Your task to perform on an android device: toggle priority inbox in the gmail app Image 0: 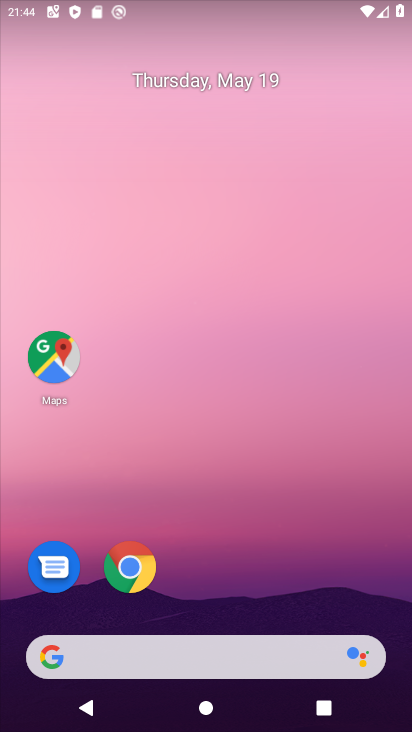
Step 0: press home button
Your task to perform on an android device: toggle priority inbox in the gmail app Image 1: 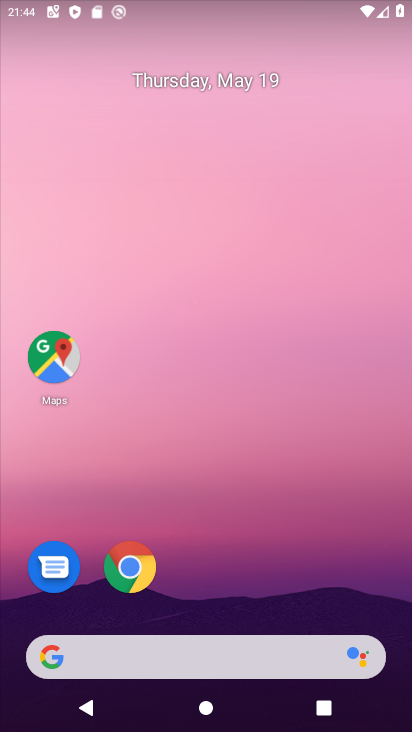
Step 1: drag from (204, 607) to (270, 141)
Your task to perform on an android device: toggle priority inbox in the gmail app Image 2: 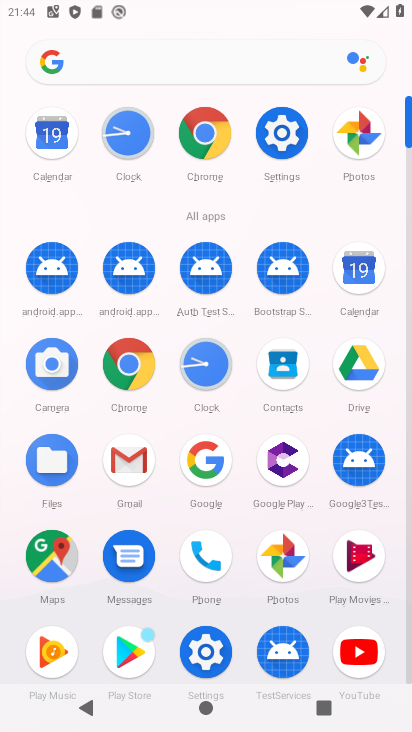
Step 2: click (136, 456)
Your task to perform on an android device: toggle priority inbox in the gmail app Image 3: 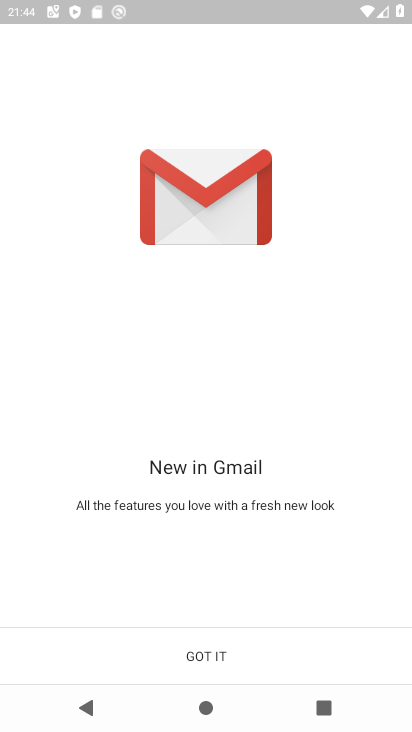
Step 3: click (207, 654)
Your task to perform on an android device: toggle priority inbox in the gmail app Image 4: 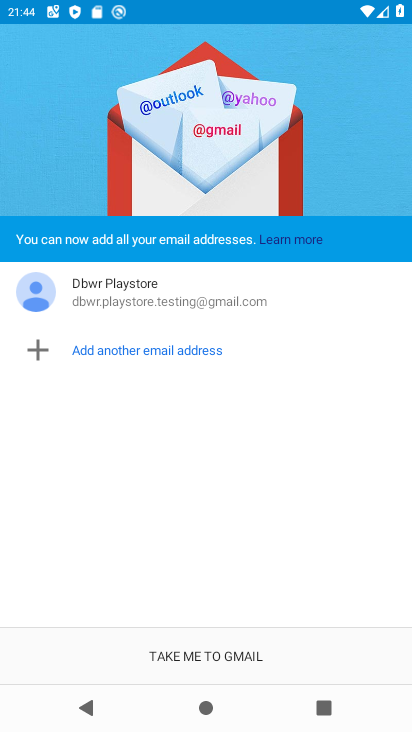
Step 4: click (207, 654)
Your task to perform on an android device: toggle priority inbox in the gmail app Image 5: 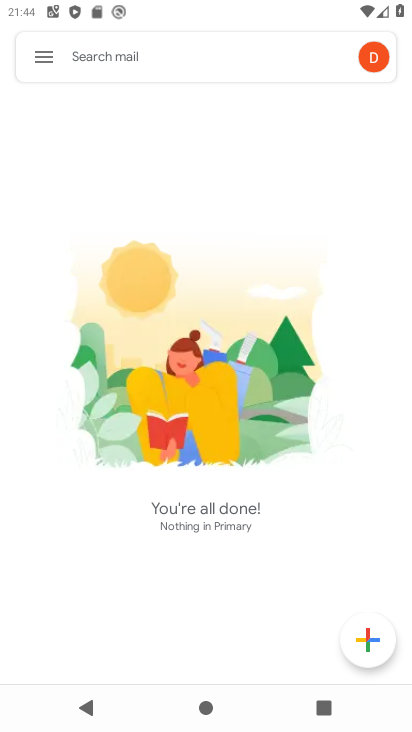
Step 5: click (34, 55)
Your task to perform on an android device: toggle priority inbox in the gmail app Image 6: 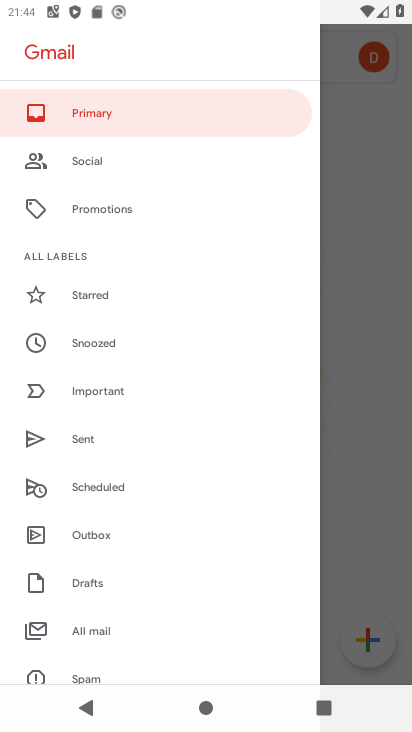
Step 6: drag from (124, 627) to (199, 96)
Your task to perform on an android device: toggle priority inbox in the gmail app Image 7: 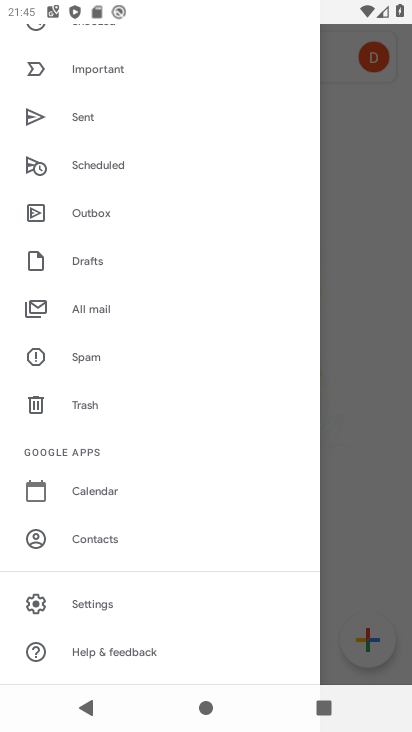
Step 7: click (120, 605)
Your task to perform on an android device: toggle priority inbox in the gmail app Image 8: 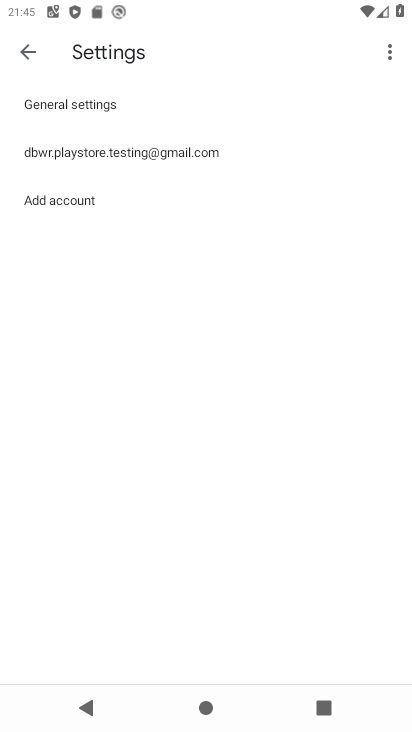
Step 8: click (153, 144)
Your task to perform on an android device: toggle priority inbox in the gmail app Image 9: 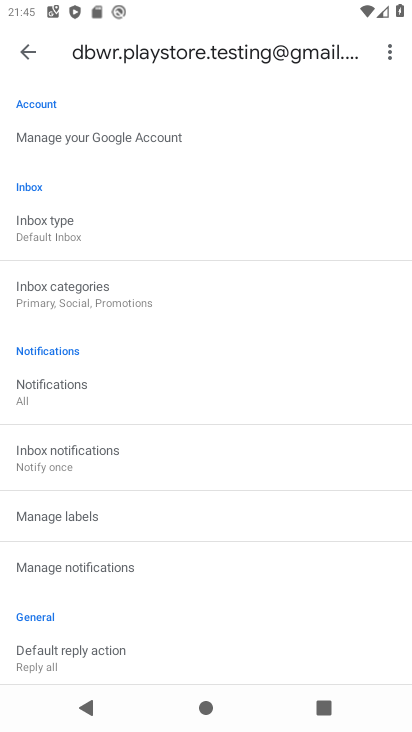
Step 9: click (97, 236)
Your task to perform on an android device: toggle priority inbox in the gmail app Image 10: 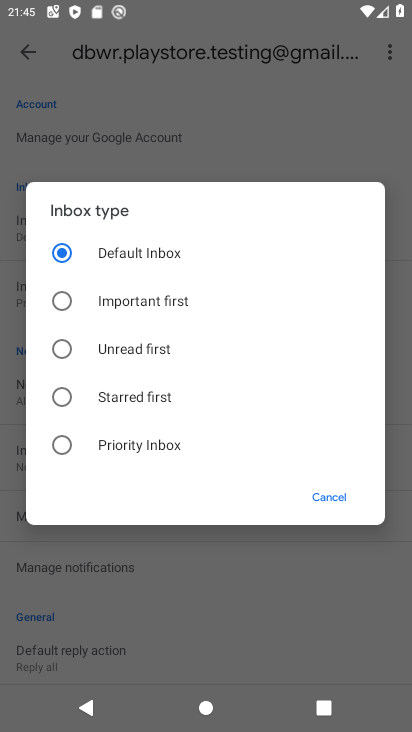
Step 10: click (63, 447)
Your task to perform on an android device: toggle priority inbox in the gmail app Image 11: 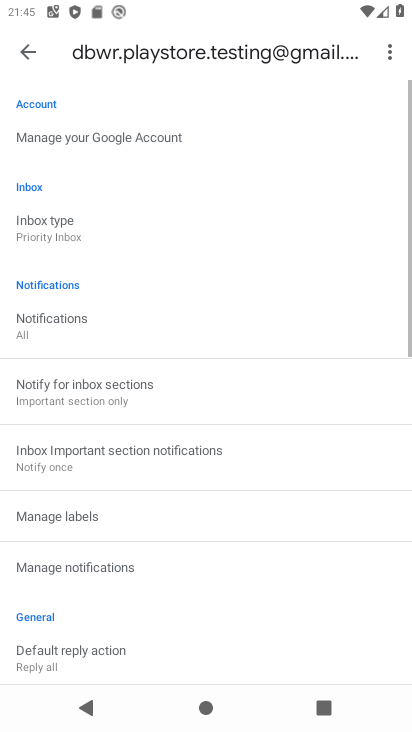
Step 11: task complete